Your task to perform on an android device: Open the calendar and show me this week's events Image 0: 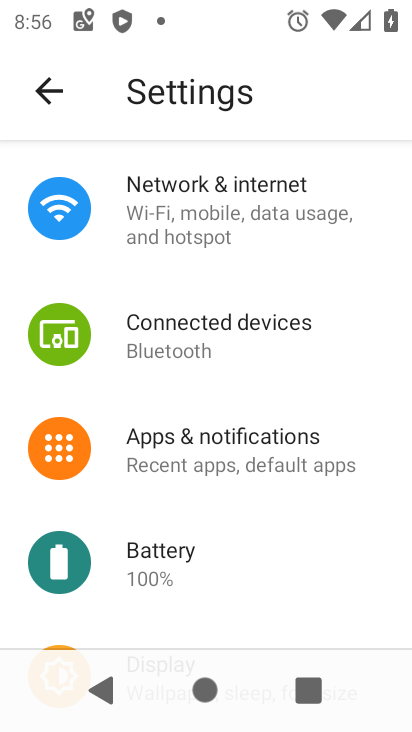
Step 0: press home button
Your task to perform on an android device: Open the calendar and show me this week's events Image 1: 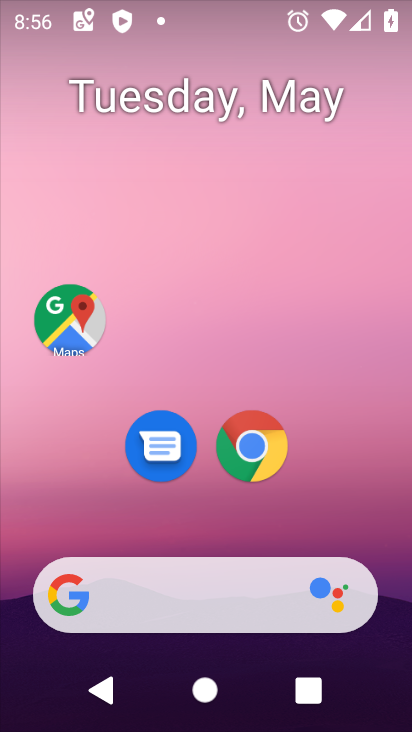
Step 1: drag from (351, 542) to (317, 52)
Your task to perform on an android device: Open the calendar and show me this week's events Image 2: 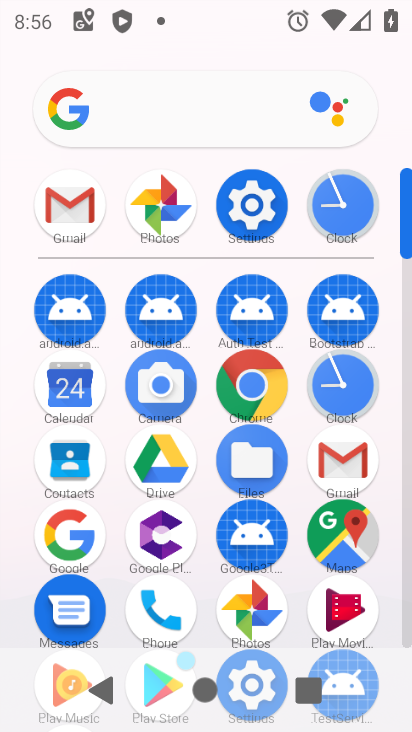
Step 2: click (65, 384)
Your task to perform on an android device: Open the calendar and show me this week's events Image 3: 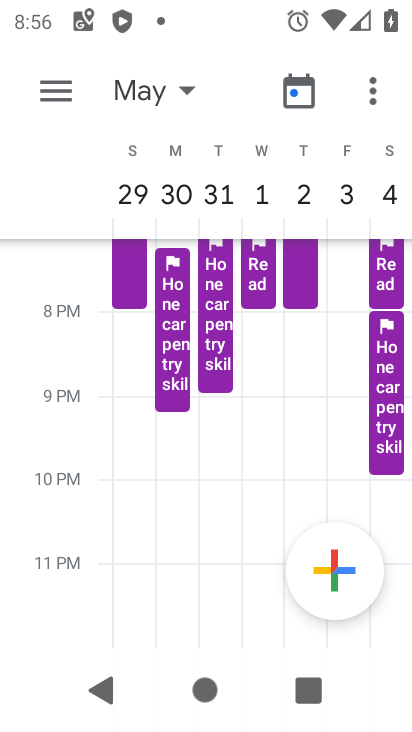
Step 3: task complete